Your task to perform on an android device: Go to display settings Image 0: 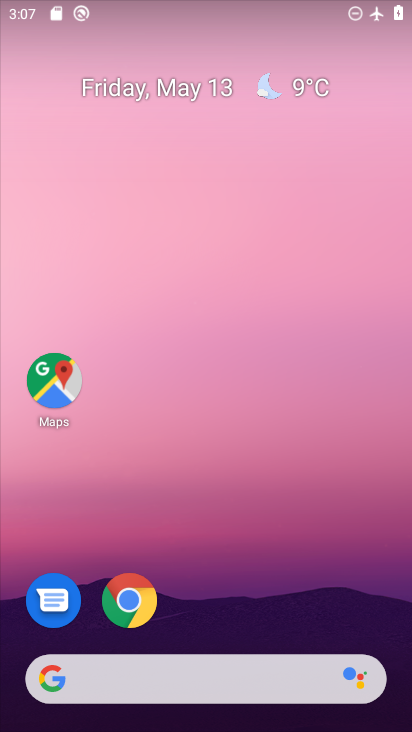
Step 0: drag from (220, 638) to (222, 198)
Your task to perform on an android device: Go to display settings Image 1: 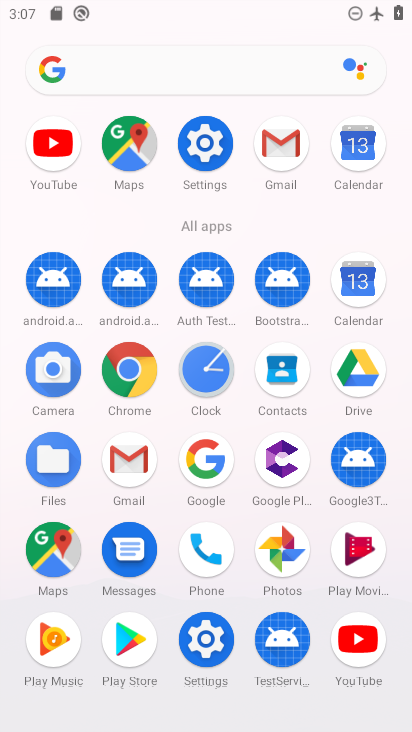
Step 1: click (209, 138)
Your task to perform on an android device: Go to display settings Image 2: 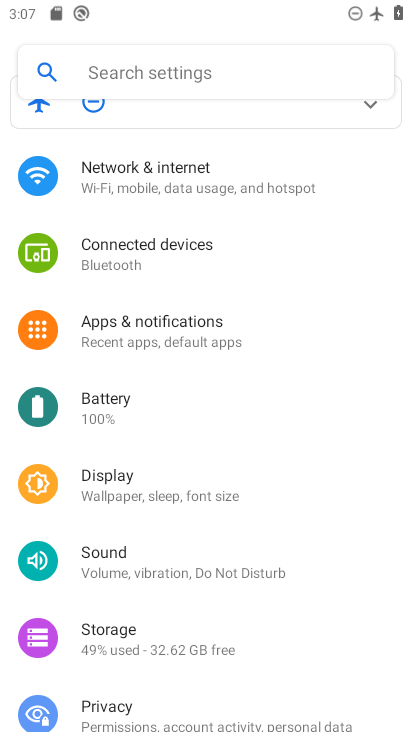
Step 2: click (122, 485)
Your task to perform on an android device: Go to display settings Image 3: 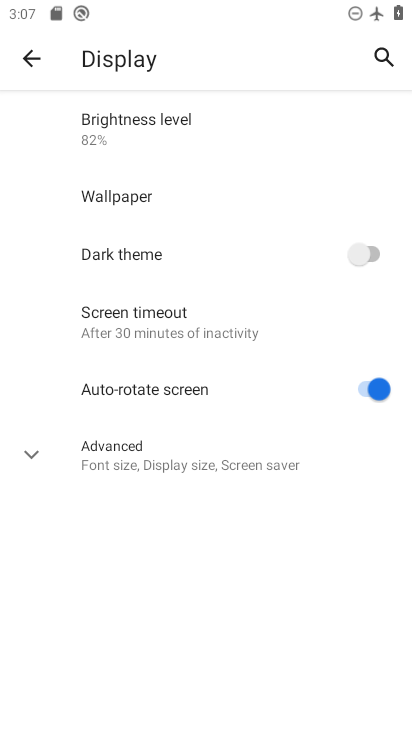
Step 3: click (87, 478)
Your task to perform on an android device: Go to display settings Image 4: 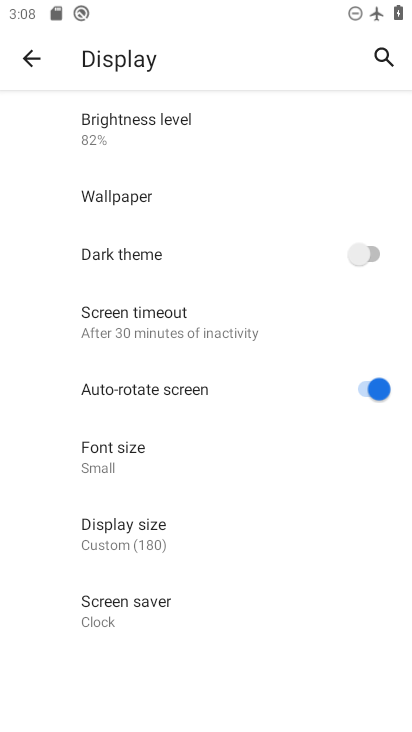
Step 4: click (103, 464)
Your task to perform on an android device: Go to display settings Image 5: 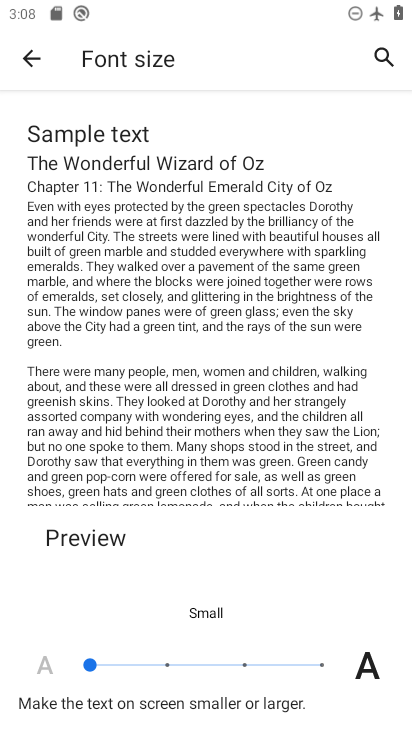
Step 5: task complete